Your task to perform on an android device: Open calendar and show me the fourth week of next month Image 0: 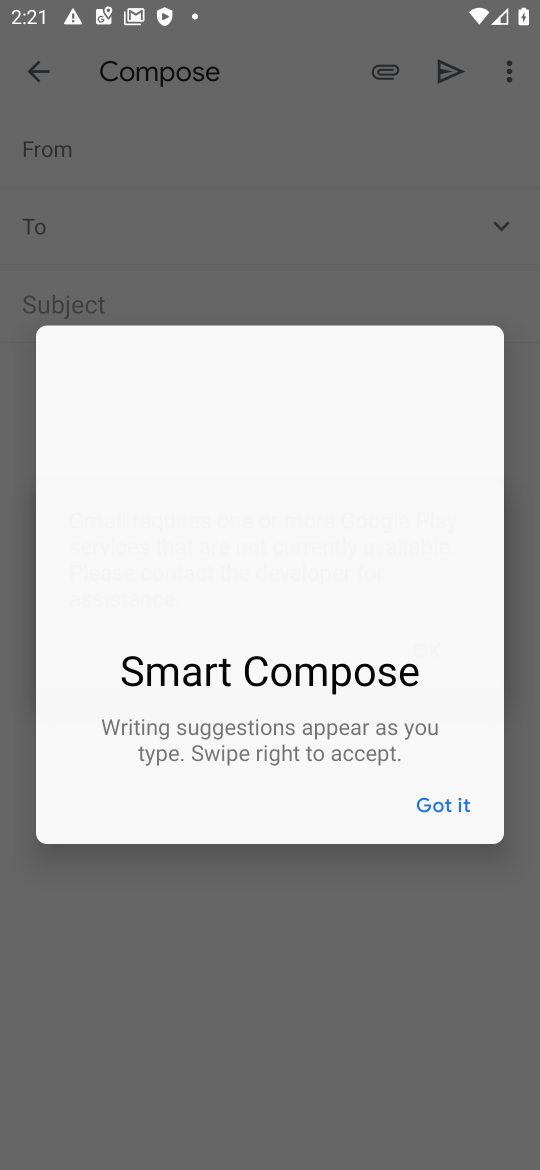
Step 0: press home button
Your task to perform on an android device: Open calendar and show me the fourth week of next month Image 1: 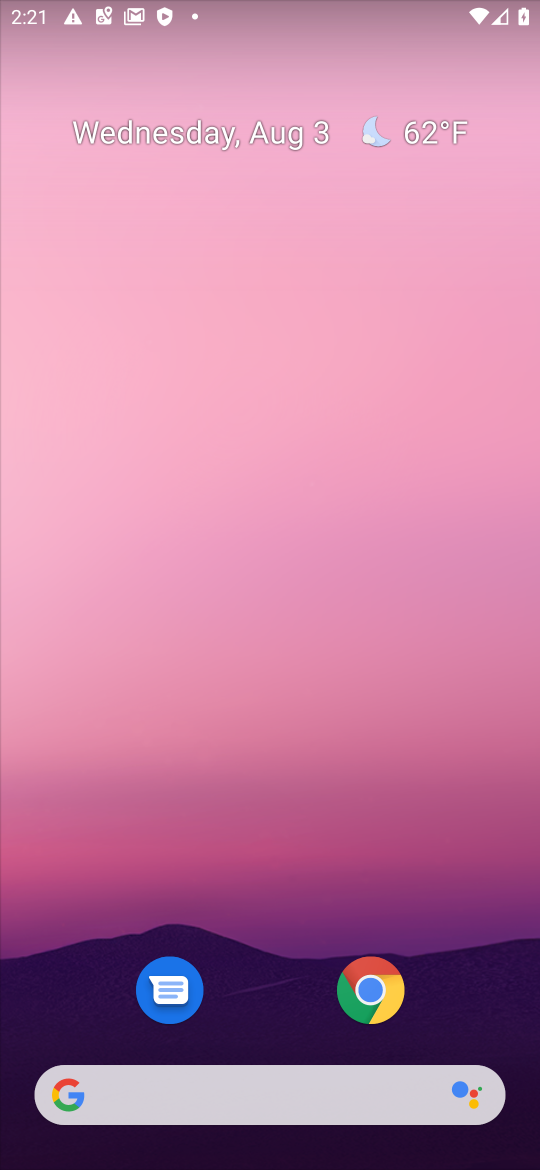
Step 1: drag from (273, 909) to (349, 256)
Your task to perform on an android device: Open calendar and show me the fourth week of next month Image 2: 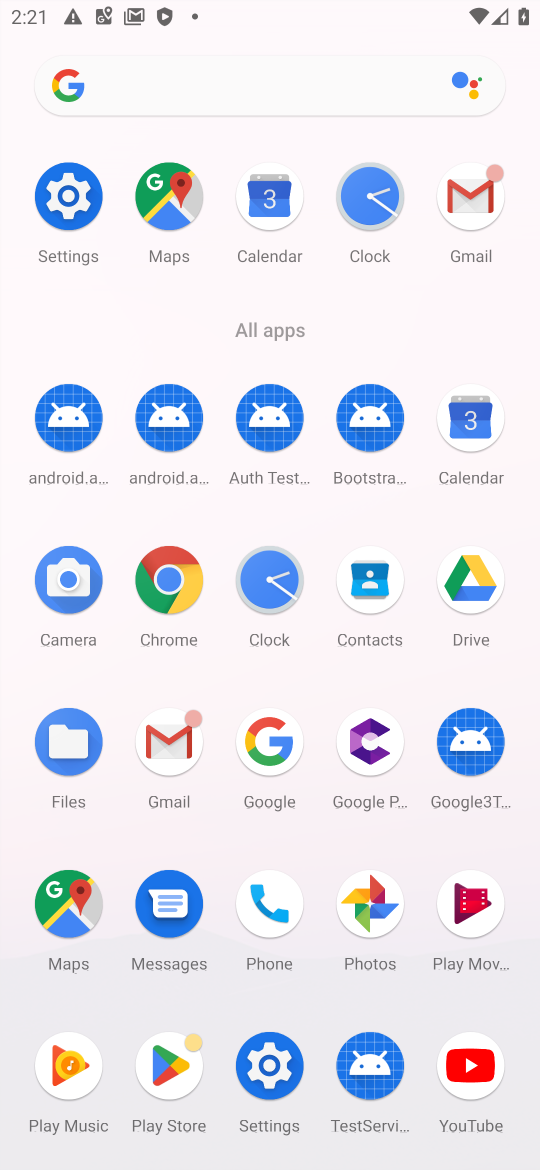
Step 2: click (487, 433)
Your task to perform on an android device: Open calendar and show me the fourth week of next month Image 3: 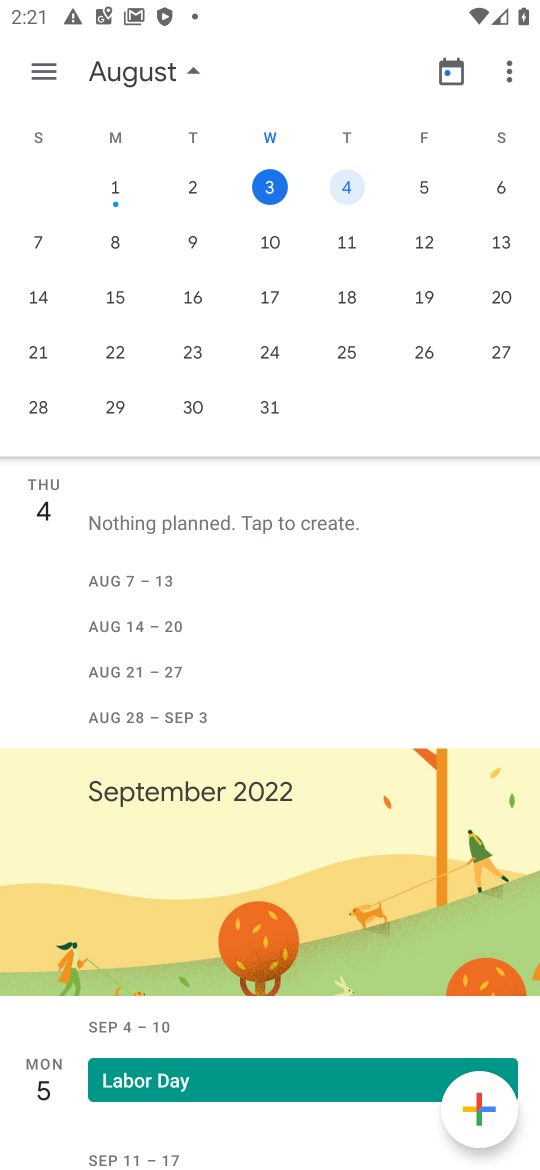
Step 3: drag from (521, 393) to (13, 366)
Your task to perform on an android device: Open calendar and show me the fourth week of next month Image 4: 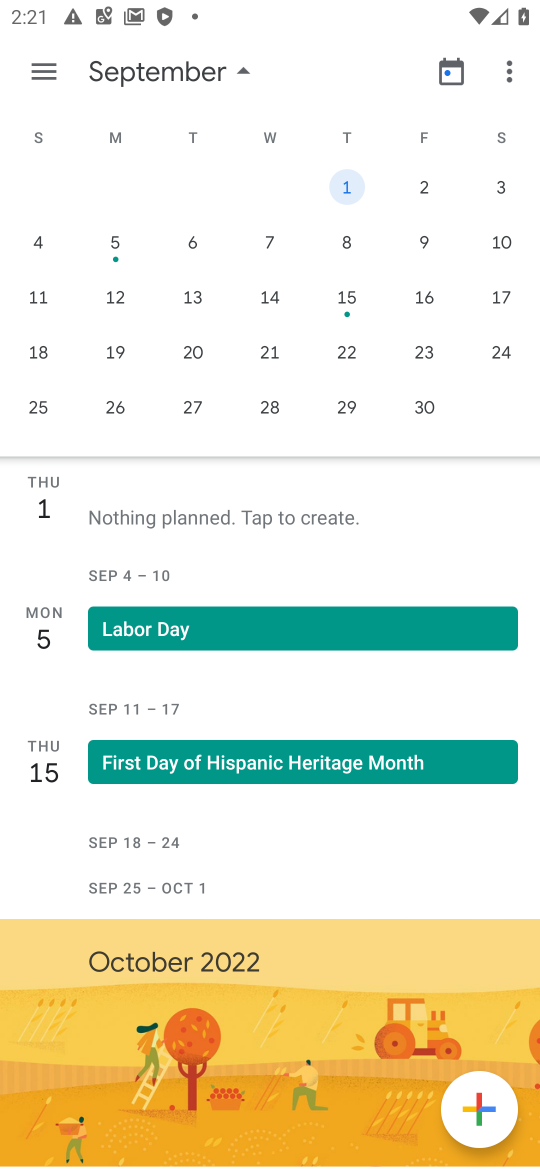
Step 4: click (39, 351)
Your task to perform on an android device: Open calendar and show me the fourth week of next month Image 5: 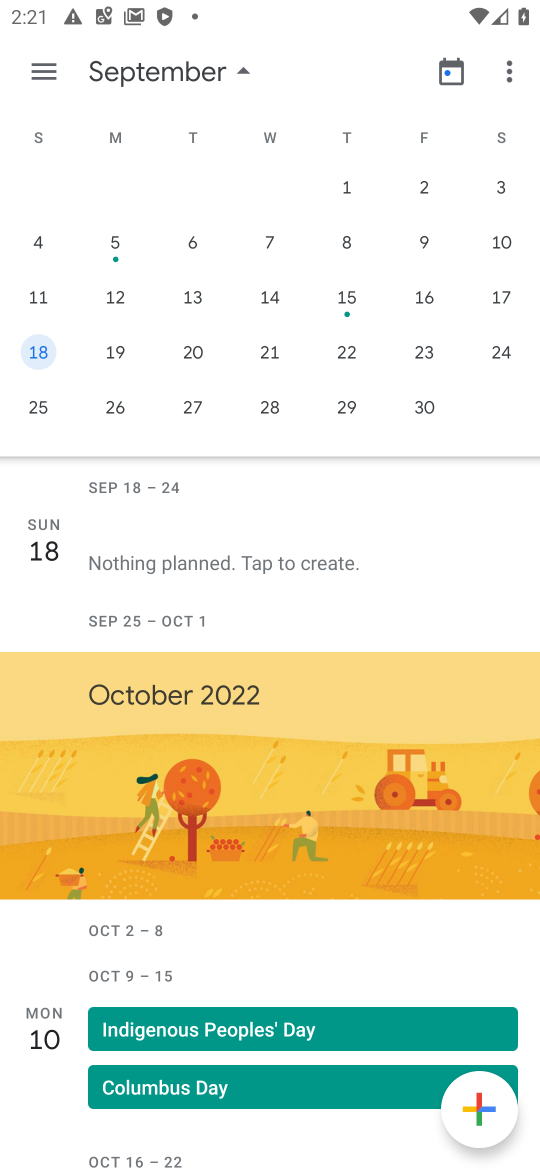
Step 5: task complete